Your task to perform on an android device: Go to network settings Image 0: 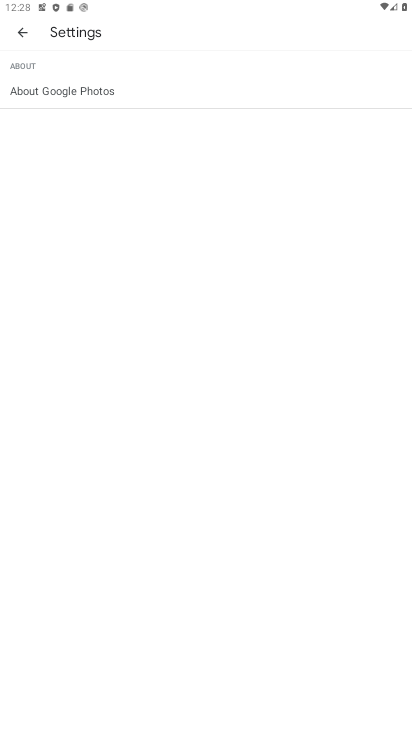
Step 0: press home button
Your task to perform on an android device: Go to network settings Image 1: 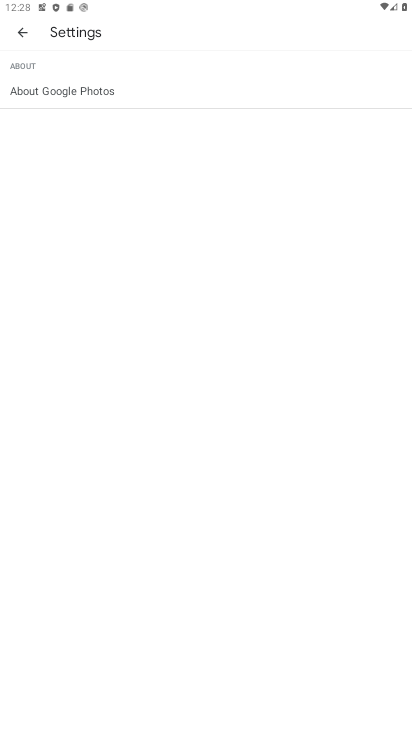
Step 1: press home button
Your task to perform on an android device: Go to network settings Image 2: 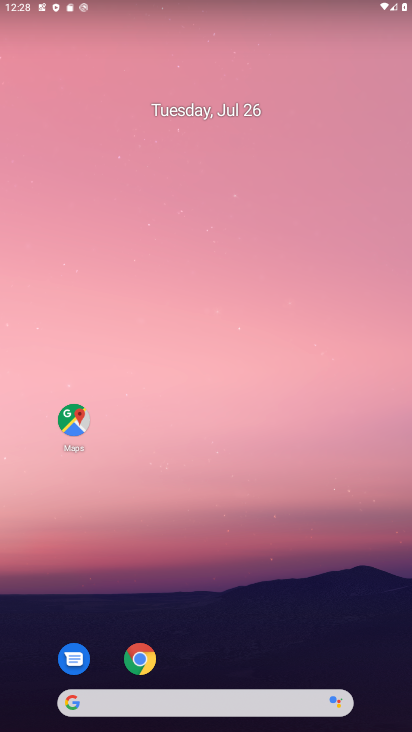
Step 2: drag from (219, 643) to (248, 1)
Your task to perform on an android device: Go to network settings Image 3: 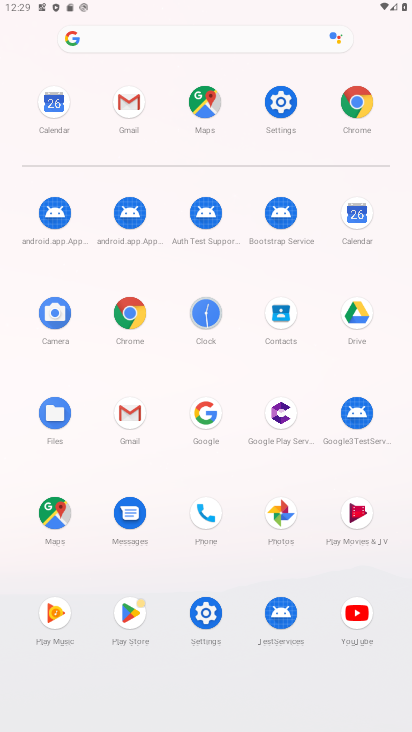
Step 3: click (207, 605)
Your task to perform on an android device: Go to network settings Image 4: 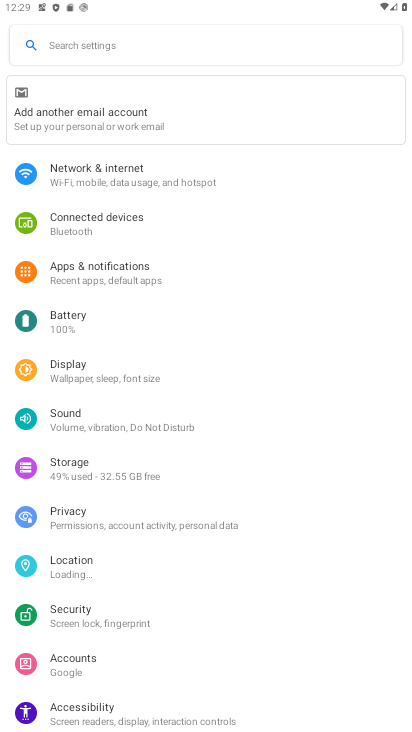
Step 4: click (120, 177)
Your task to perform on an android device: Go to network settings Image 5: 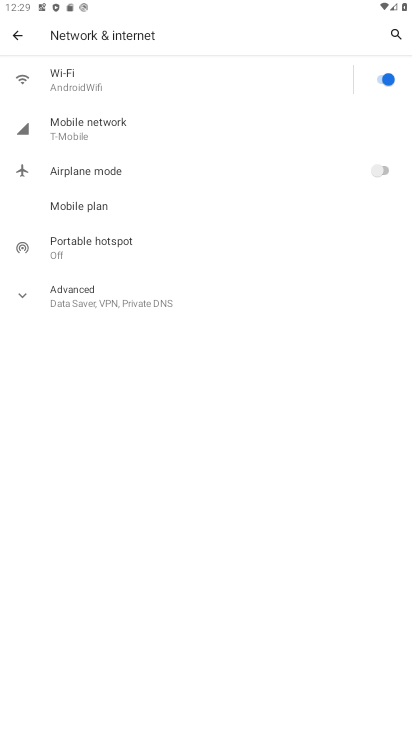
Step 5: task complete